Your task to perform on an android device: Check the weather Image 0: 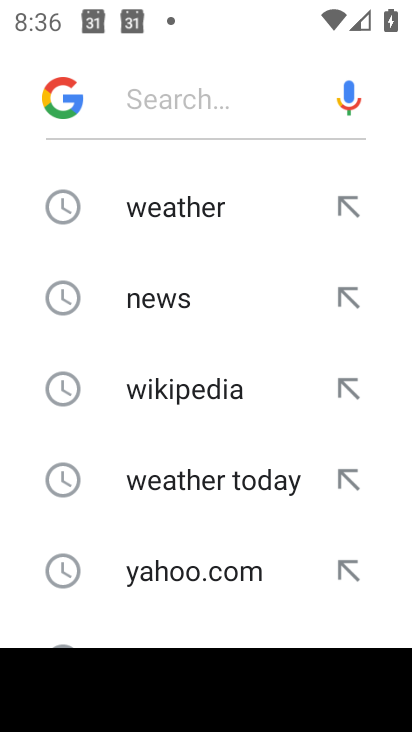
Step 0: click (229, 200)
Your task to perform on an android device: Check the weather Image 1: 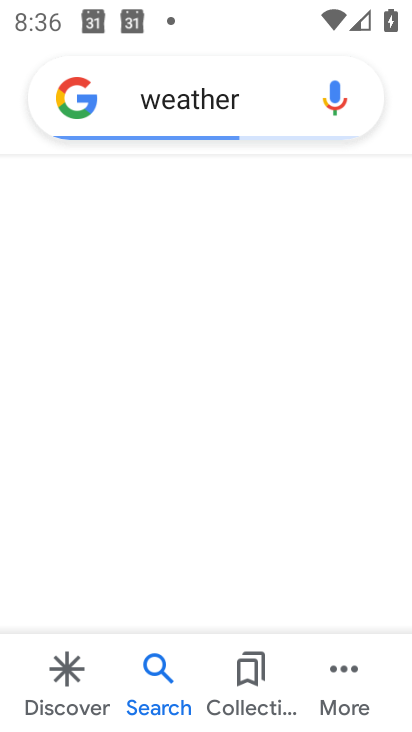
Step 1: task complete